Your task to perform on an android device: manage bookmarks in the chrome app Image 0: 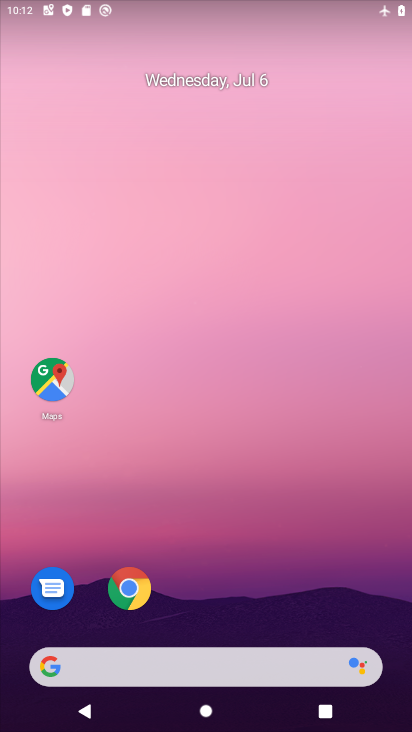
Step 0: drag from (186, 573) to (186, 191)
Your task to perform on an android device: manage bookmarks in the chrome app Image 1: 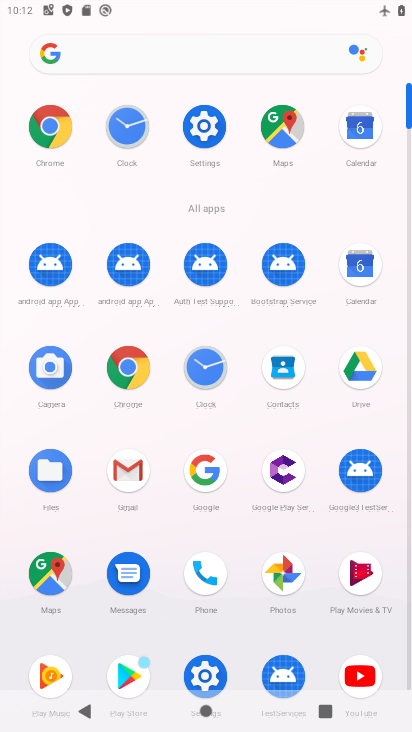
Step 1: click (119, 360)
Your task to perform on an android device: manage bookmarks in the chrome app Image 2: 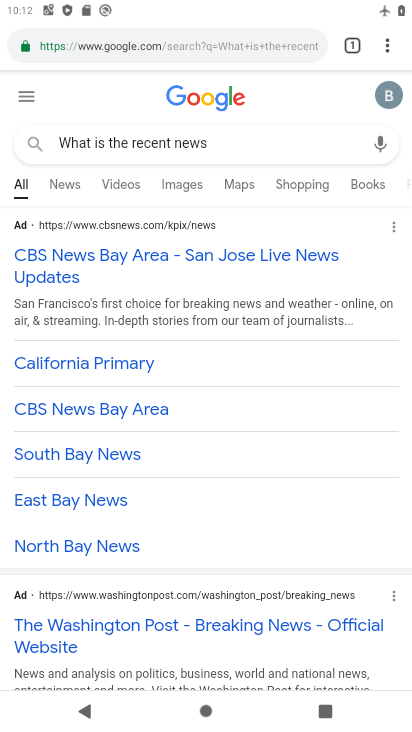
Step 2: click (389, 46)
Your task to perform on an android device: manage bookmarks in the chrome app Image 3: 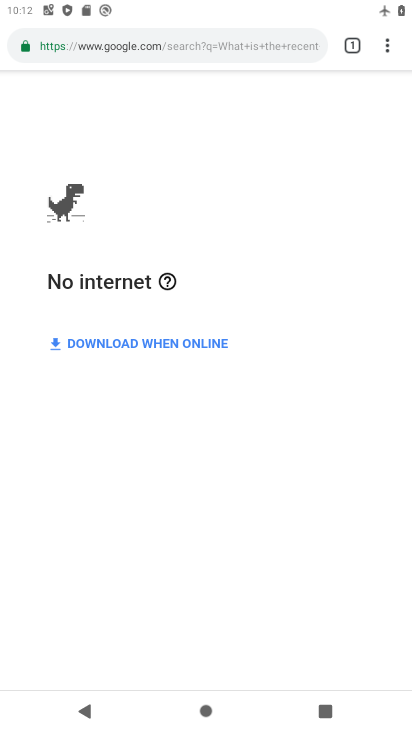
Step 3: click (393, 34)
Your task to perform on an android device: manage bookmarks in the chrome app Image 4: 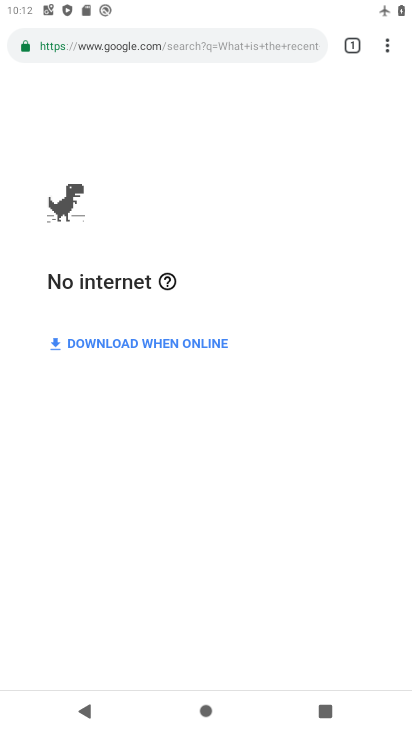
Step 4: click (378, 38)
Your task to perform on an android device: manage bookmarks in the chrome app Image 5: 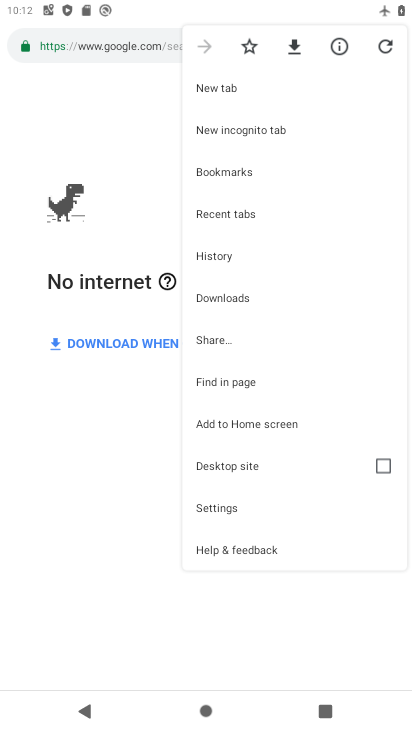
Step 5: click (246, 162)
Your task to perform on an android device: manage bookmarks in the chrome app Image 6: 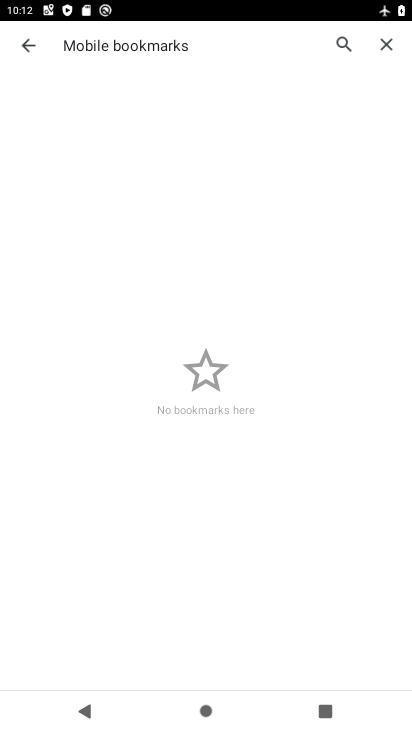
Step 6: task complete